Your task to perform on an android device: change timer sound Image 0: 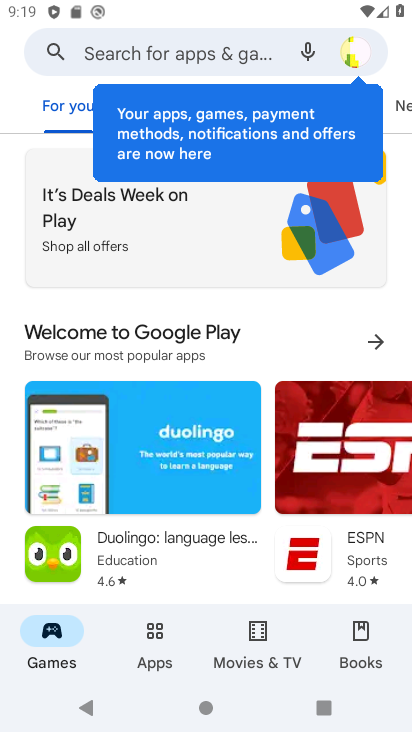
Step 0: press home button
Your task to perform on an android device: change timer sound Image 1: 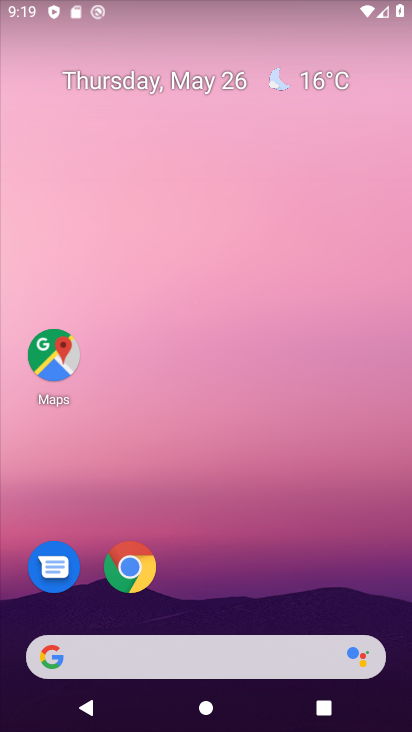
Step 1: drag from (394, 694) to (224, 99)
Your task to perform on an android device: change timer sound Image 2: 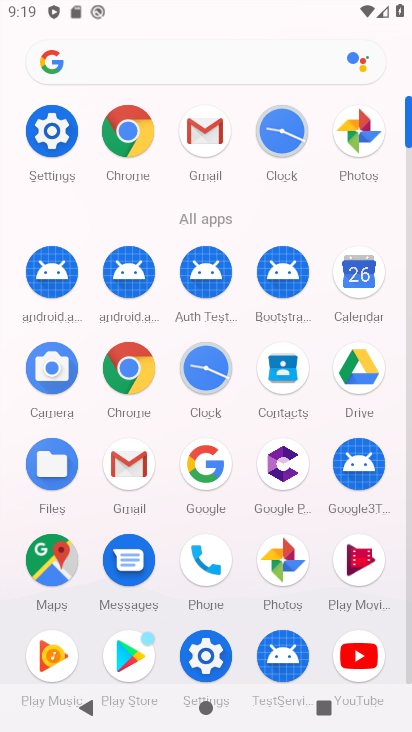
Step 2: click (33, 131)
Your task to perform on an android device: change timer sound Image 3: 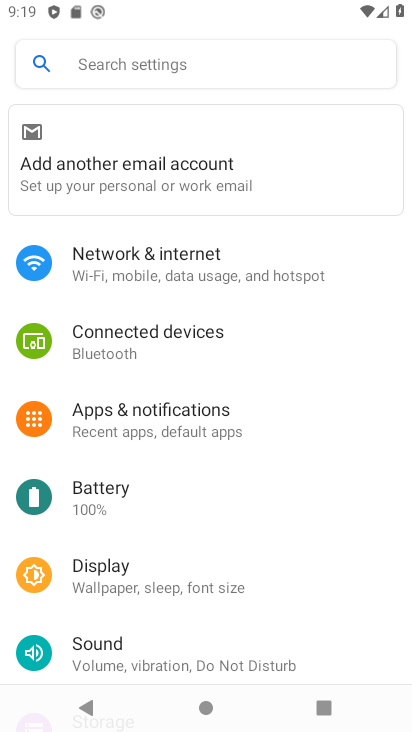
Step 3: press back button
Your task to perform on an android device: change timer sound Image 4: 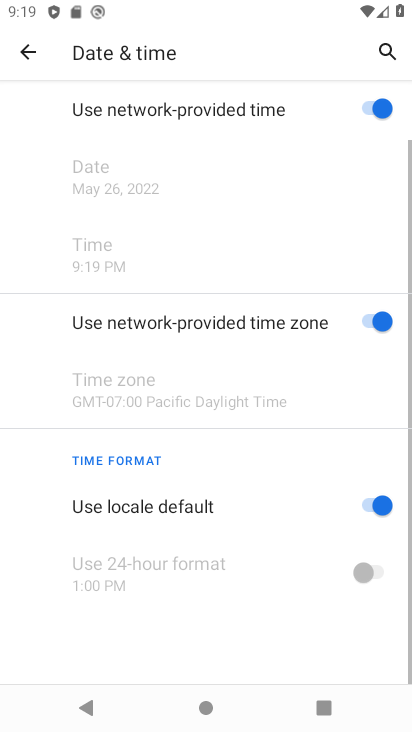
Step 4: press back button
Your task to perform on an android device: change timer sound Image 5: 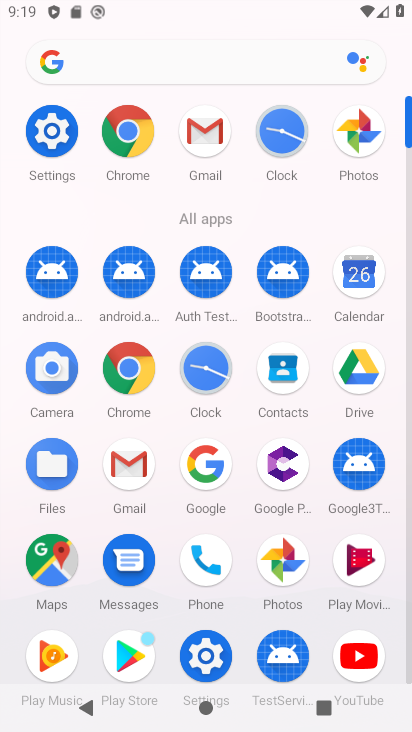
Step 5: click (204, 385)
Your task to perform on an android device: change timer sound Image 6: 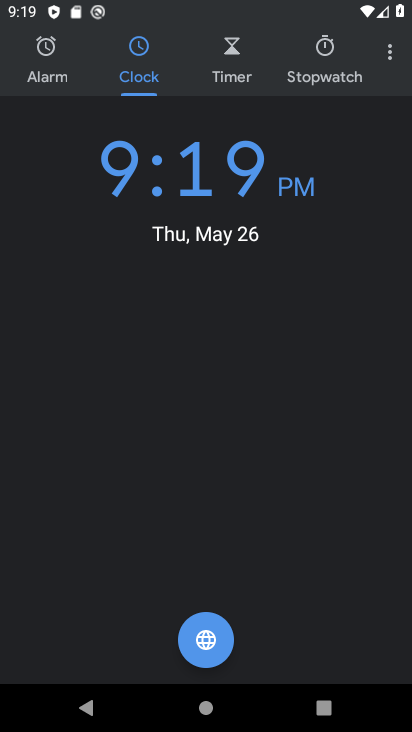
Step 6: click (390, 58)
Your task to perform on an android device: change timer sound Image 7: 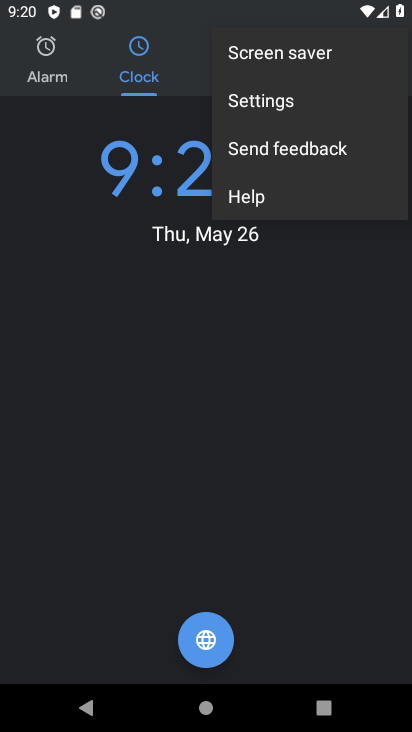
Step 7: click (272, 99)
Your task to perform on an android device: change timer sound Image 8: 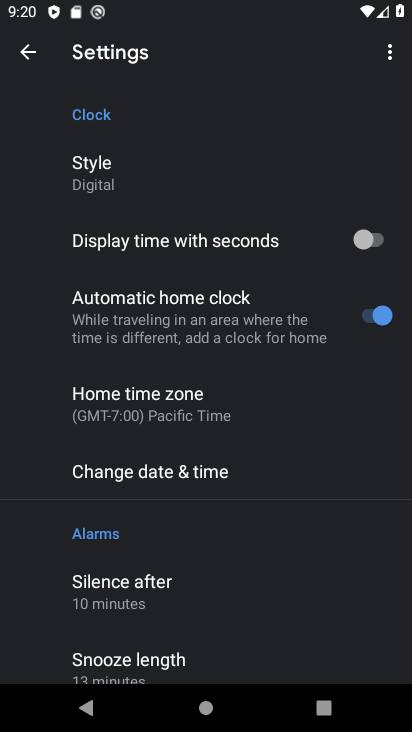
Step 8: drag from (282, 659) to (242, 0)
Your task to perform on an android device: change timer sound Image 9: 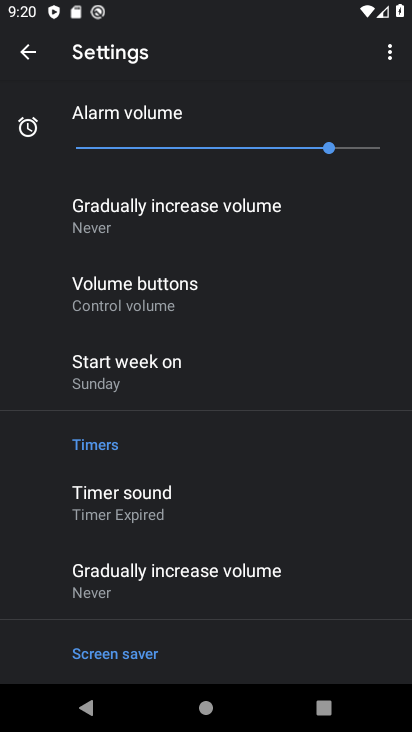
Step 9: click (151, 486)
Your task to perform on an android device: change timer sound Image 10: 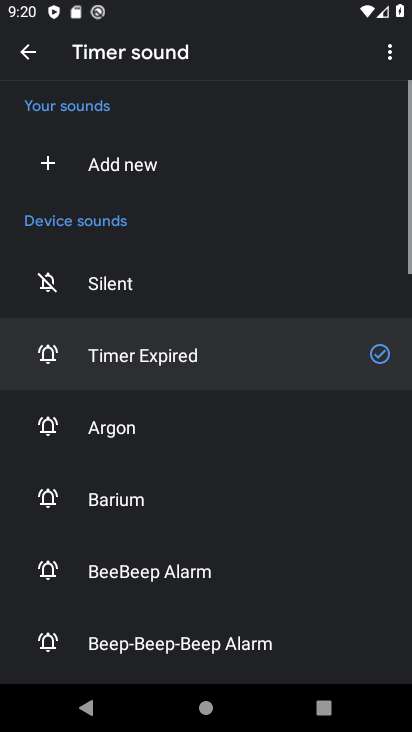
Step 10: click (129, 503)
Your task to perform on an android device: change timer sound Image 11: 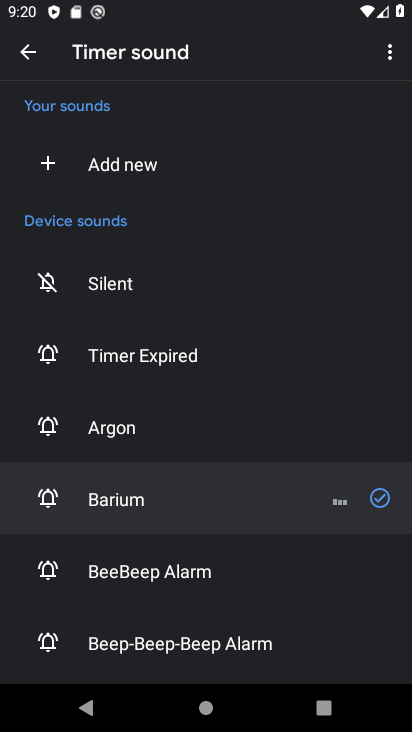
Step 11: task complete